Your task to perform on an android device: Go to location settings Image 0: 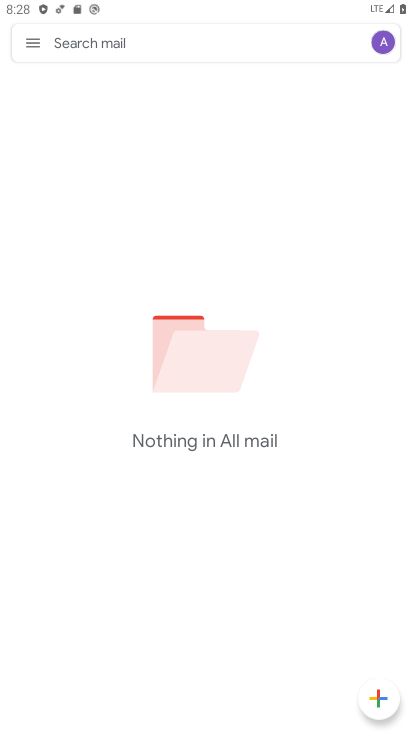
Step 0: press home button
Your task to perform on an android device: Go to location settings Image 1: 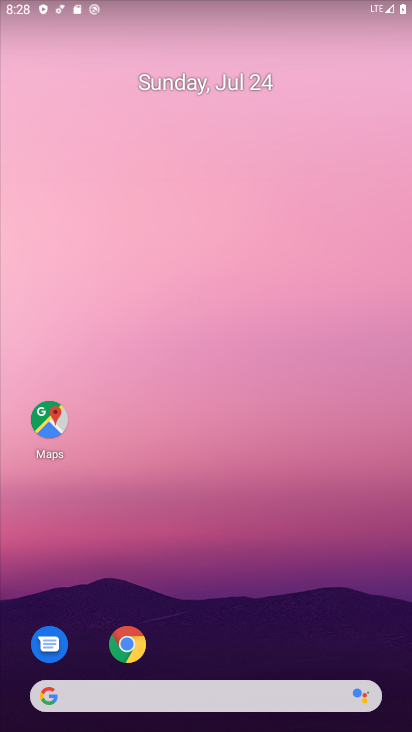
Step 1: drag from (36, 577) to (243, 110)
Your task to perform on an android device: Go to location settings Image 2: 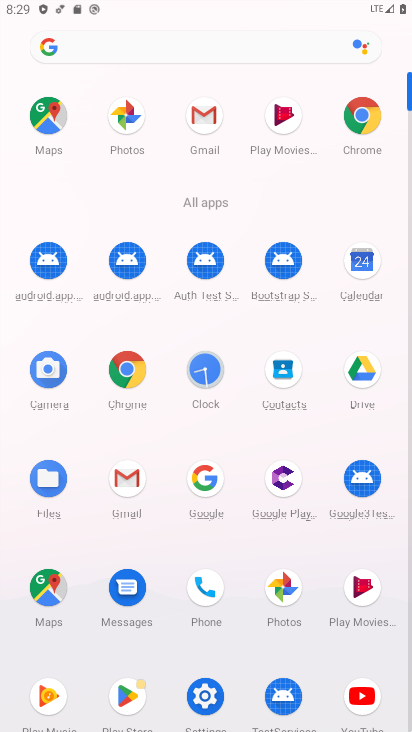
Step 2: click (206, 691)
Your task to perform on an android device: Go to location settings Image 3: 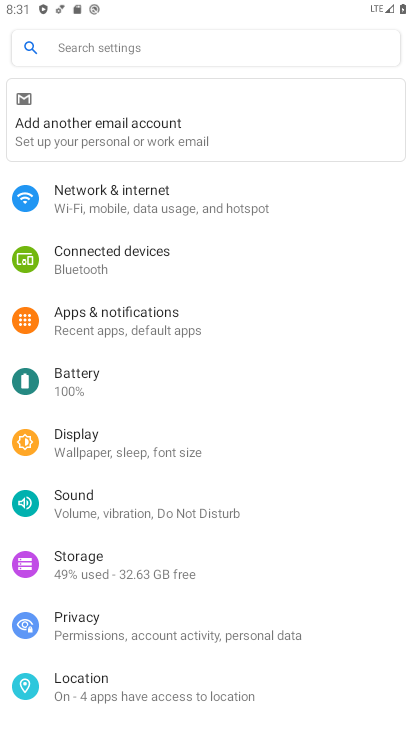
Step 3: click (60, 687)
Your task to perform on an android device: Go to location settings Image 4: 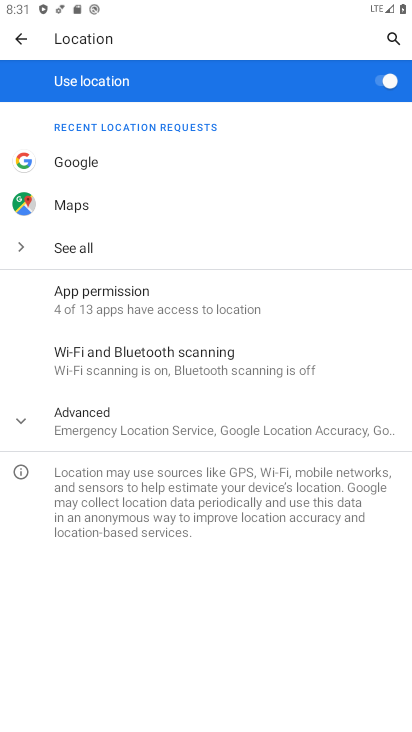
Step 4: task complete